Your task to perform on an android device: change alarm snooze length Image 0: 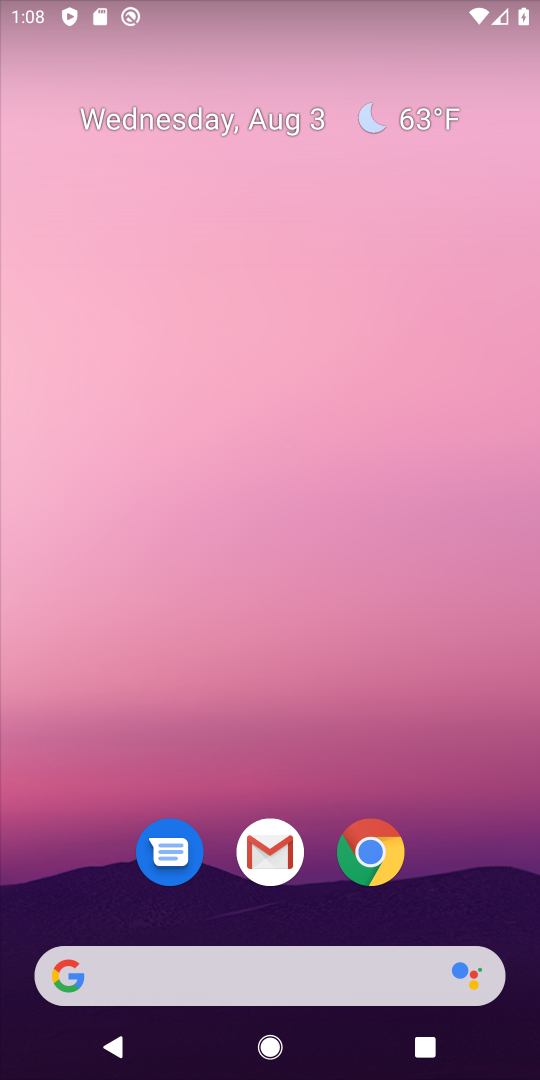
Step 0: drag from (340, 426) to (316, 165)
Your task to perform on an android device: change alarm snooze length Image 1: 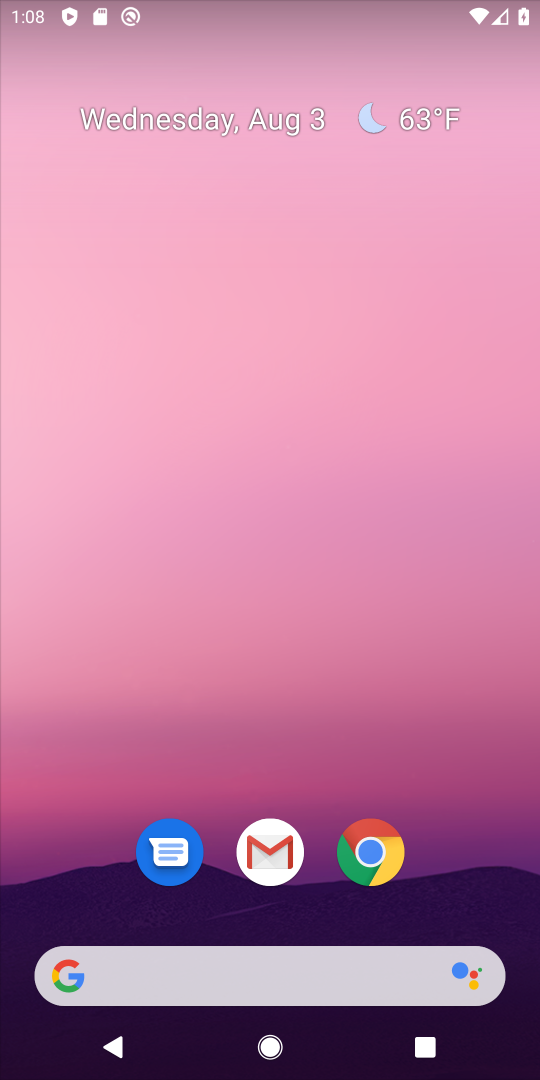
Step 1: drag from (257, 23) to (347, 13)
Your task to perform on an android device: change alarm snooze length Image 2: 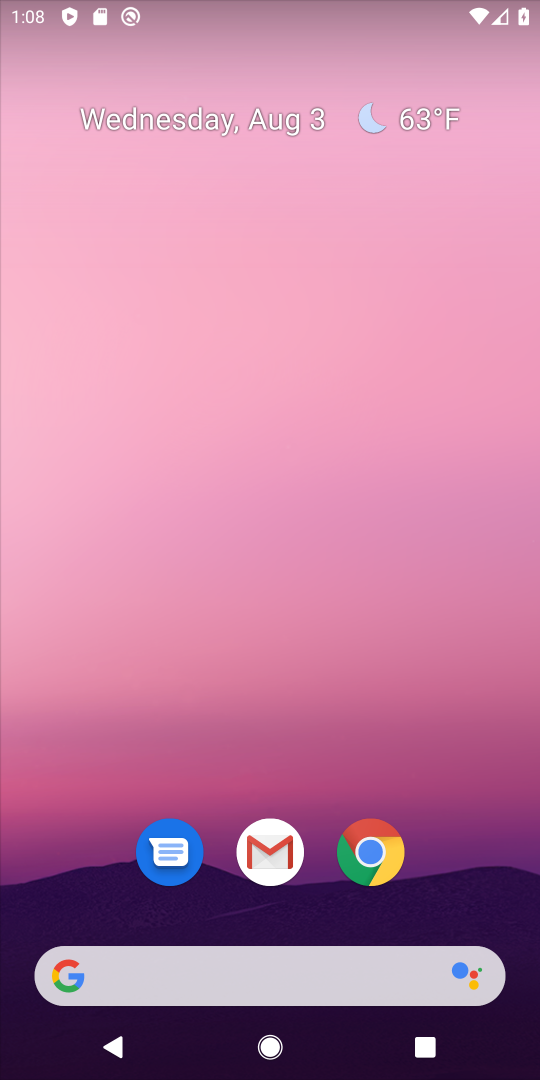
Step 2: drag from (288, 686) to (181, 115)
Your task to perform on an android device: change alarm snooze length Image 3: 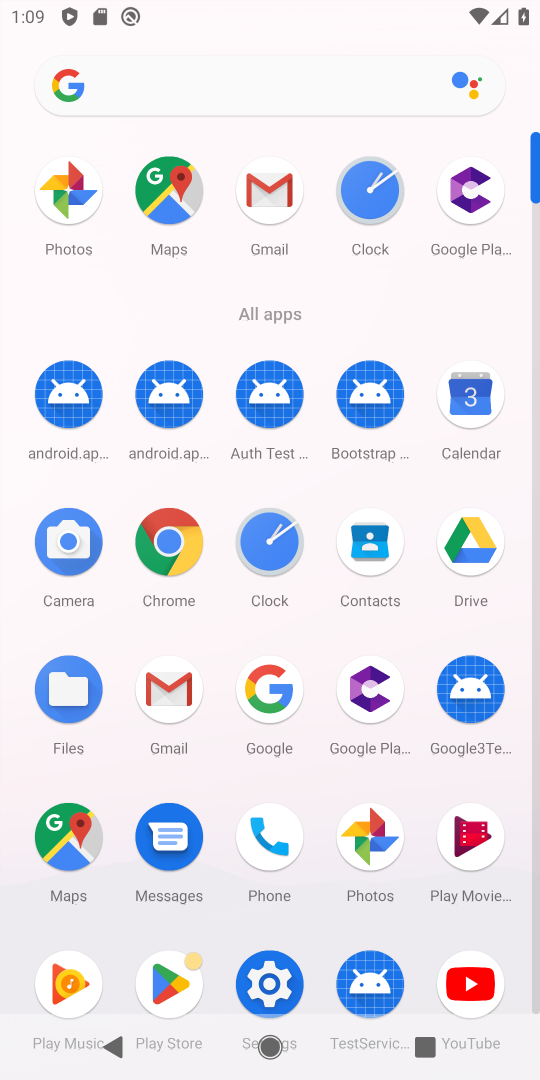
Step 3: click (379, 200)
Your task to perform on an android device: change alarm snooze length Image 4: 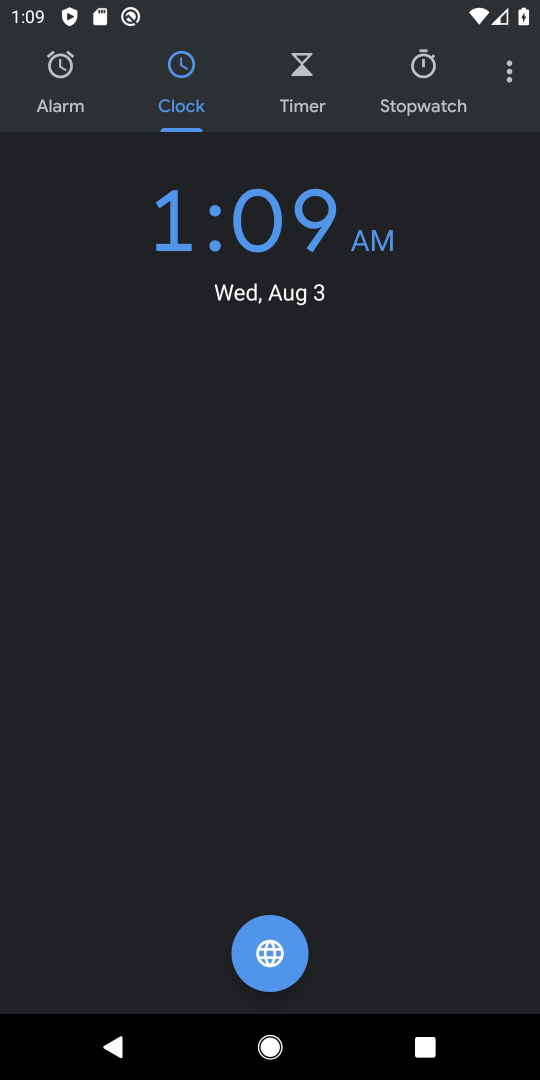
Step 4: click (510, 85)
Your task to perform on an android device: change alarm snooze length Image 5: 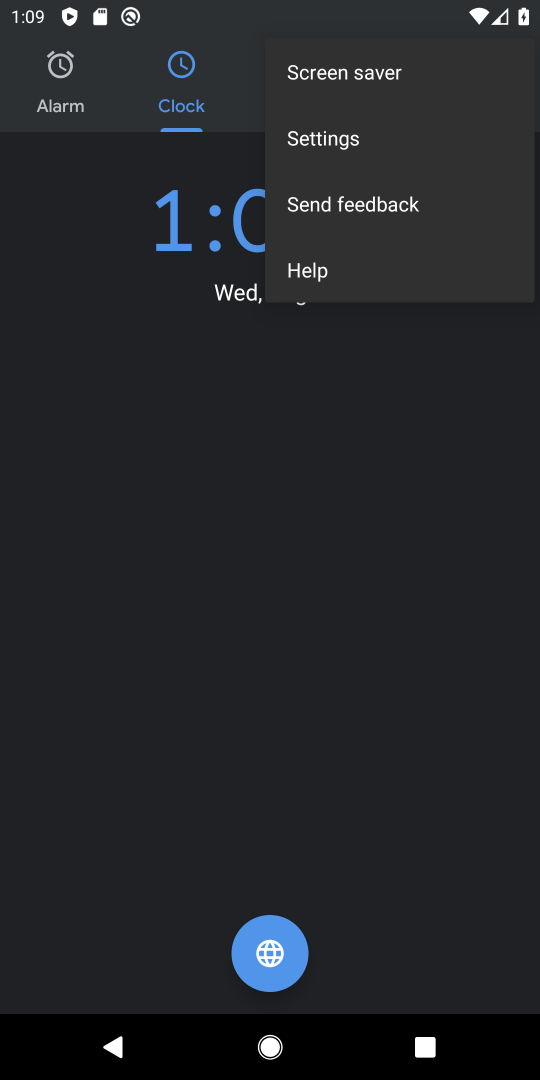
Step 5: click (325, 136)
Your task to perform on an android device: change alarm snooze length Image 6: 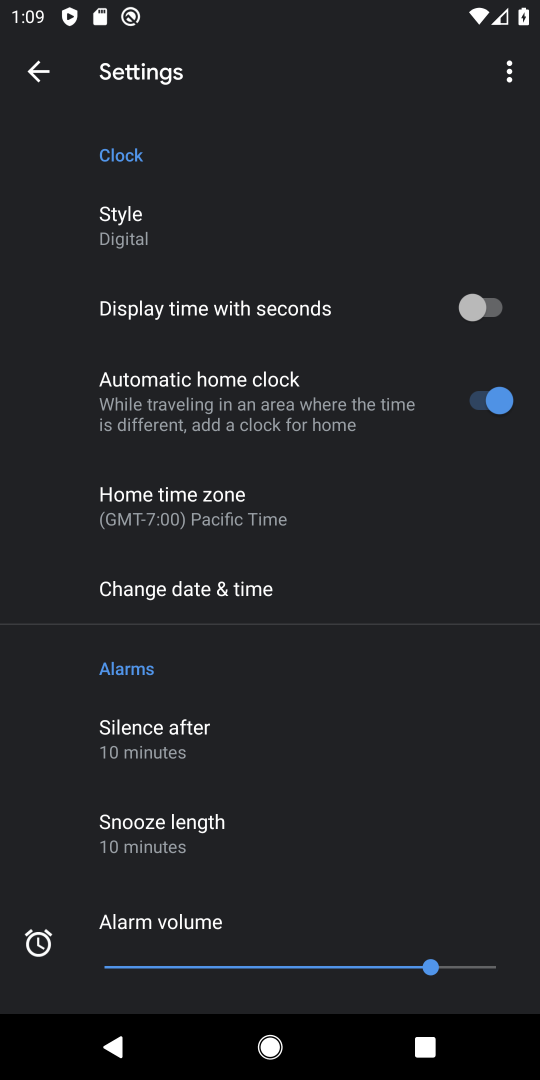
Step 6: click (208, 820)
Your task to perform on an android device: change alarm snooze length Image 7: 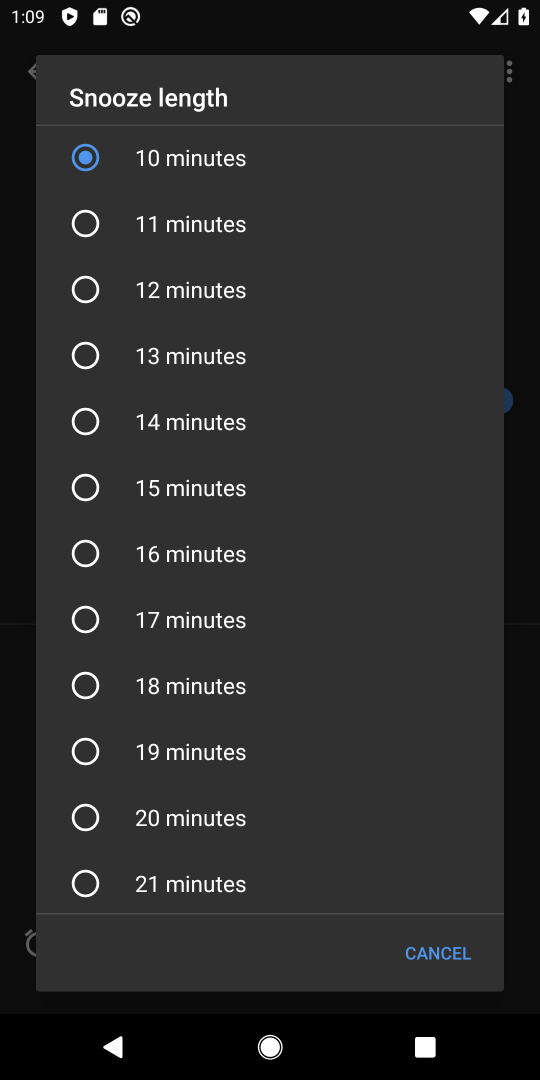
Step 7: click (72, 287)
Your task to perform on an android device: change alarm snooze length Image 8: 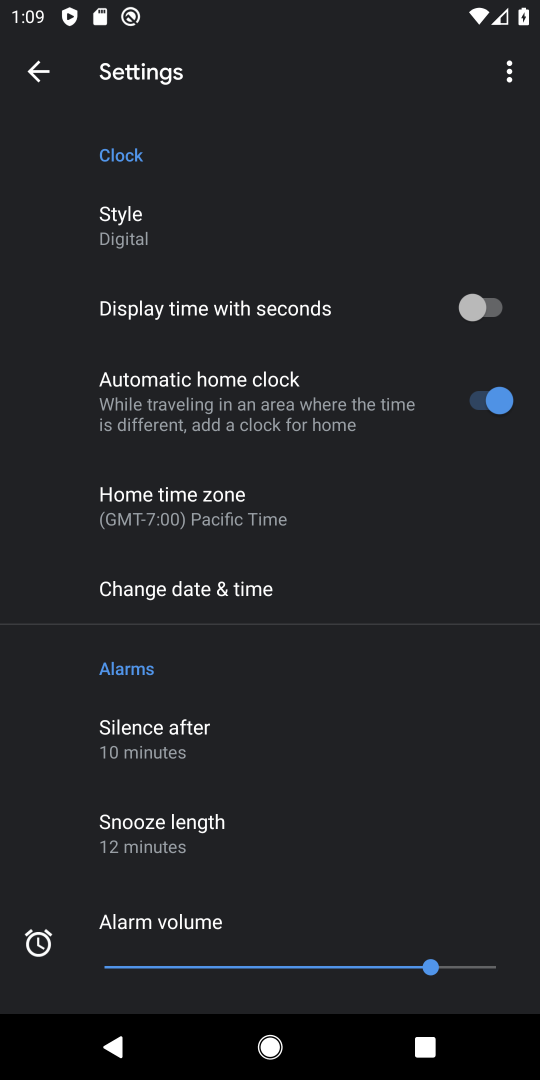
Step 8: task complete